Your task to perform on an android device: Open the phone app and click the voicemail tab. Image 0: 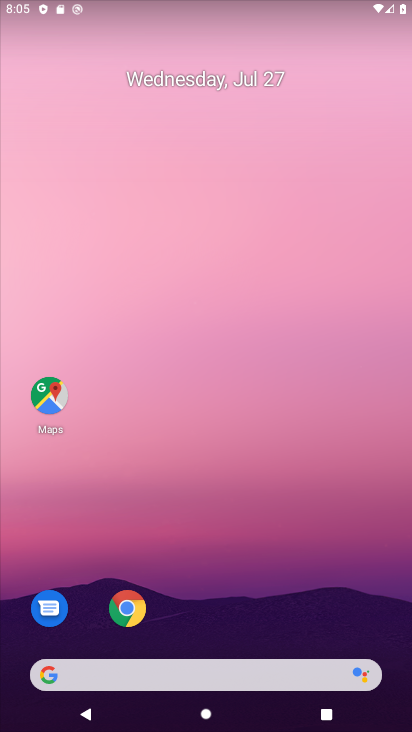
Step 0: drag from (241, 553) to (197, 245)
Your task to perform on an android device: Open the phone app and click the voicemail tab. Image 1: 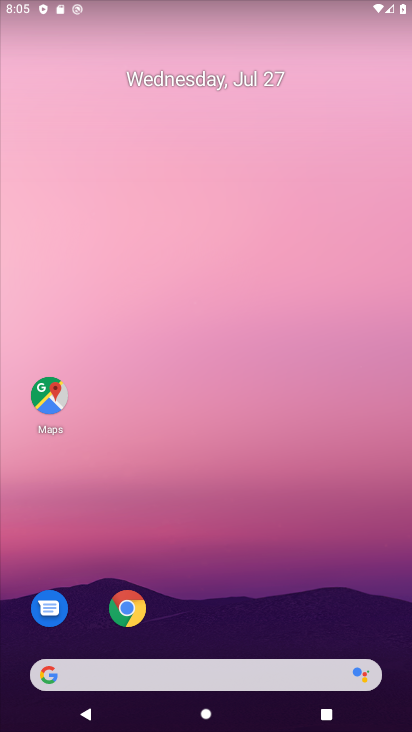
Step 1: drag from (230, 617) to (231, 145)
Your task to perform on an android device: Open the phone app and click the voicemail tab. Image 2: 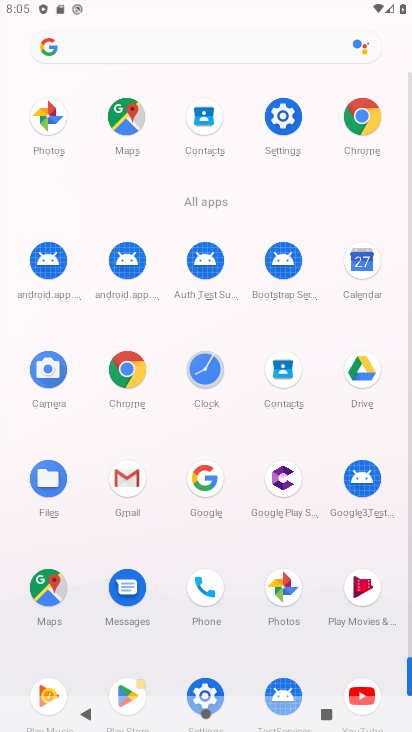
Step 2: click (276, 110)
Your task to perform on an android device: Open the phone app and click the voicemail tab. Image 3: 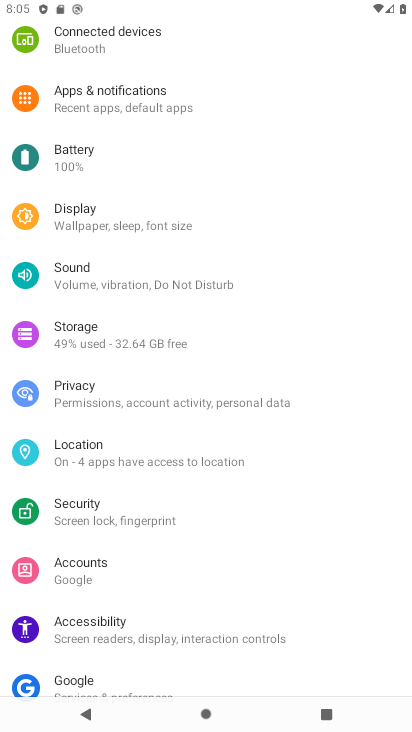
Step 3: task complete